Your task to perform on an android device: Go to eBay Image 0: 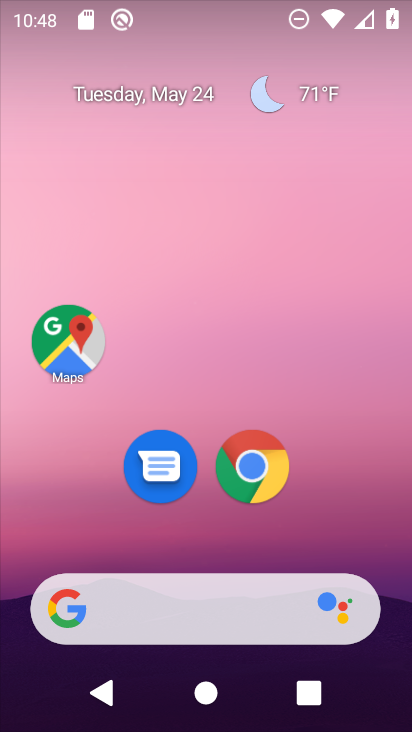
Step 0: click (253, 482)
Your task to perform on an android device: Go to eBay Image 1: 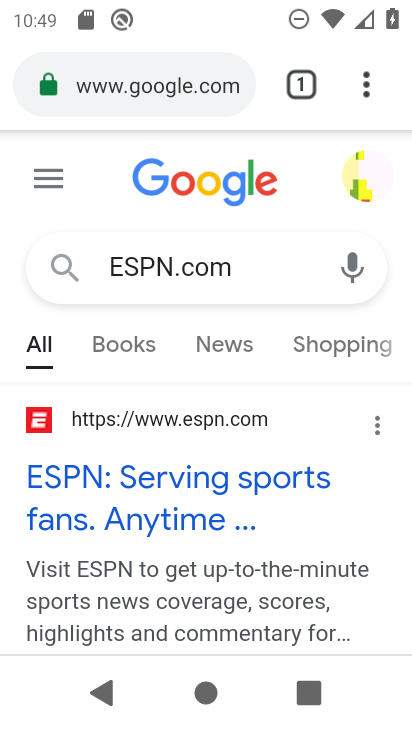
Step 1: click (180, 90)
Your task to perform on an android device: Go to eBay Image 2: 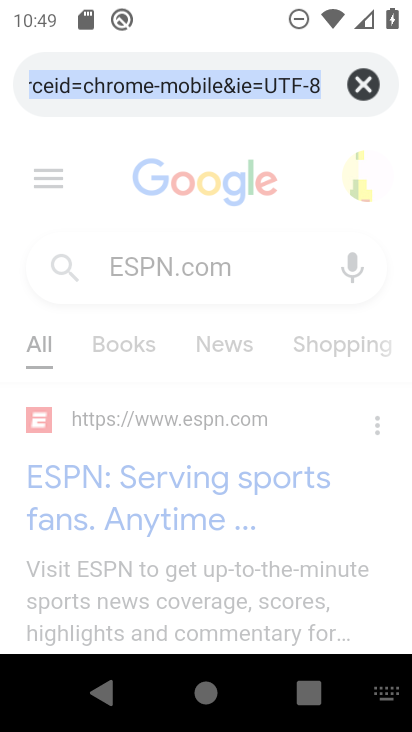
Step 2: type "eBay"
Your task to perform on an android device: Go to eBay Image 3: 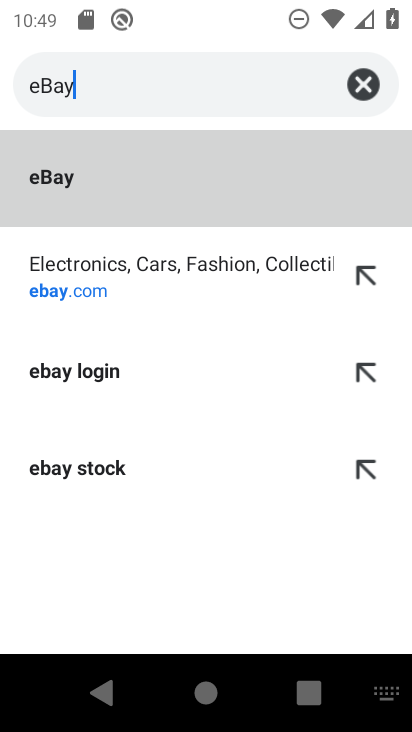
Step 3: click (196, 178)
Your task to perform on an android device: Go to eBay Image 4: 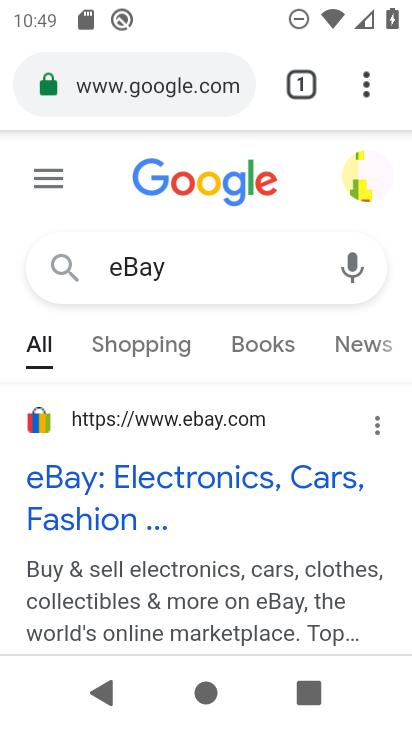
Step 4: task complete